Your task to perform on an android device: see tabs open on other devices in the chrome app Image 0: 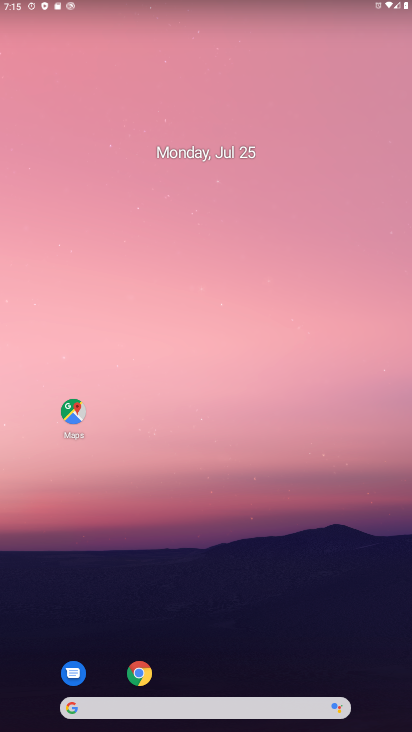
Step 0: drag from (391, 650) to (228, 47)
Your task to perform on an android device: see tabs open on other devices in the chrome app Image 1: 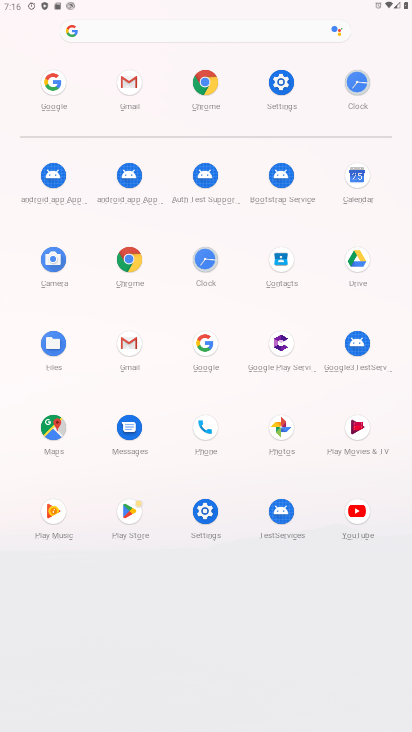
Step 1: click (129, 272)
Your task to perform on an android device: see tabs open on other devices in the chrome app Image 2: 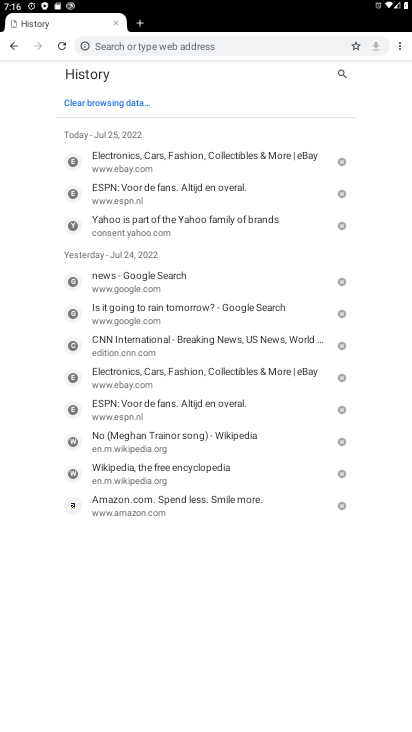
Step 2: task complete